Your task to perform on an android device: turn on data saver in the chrome app Image 0: 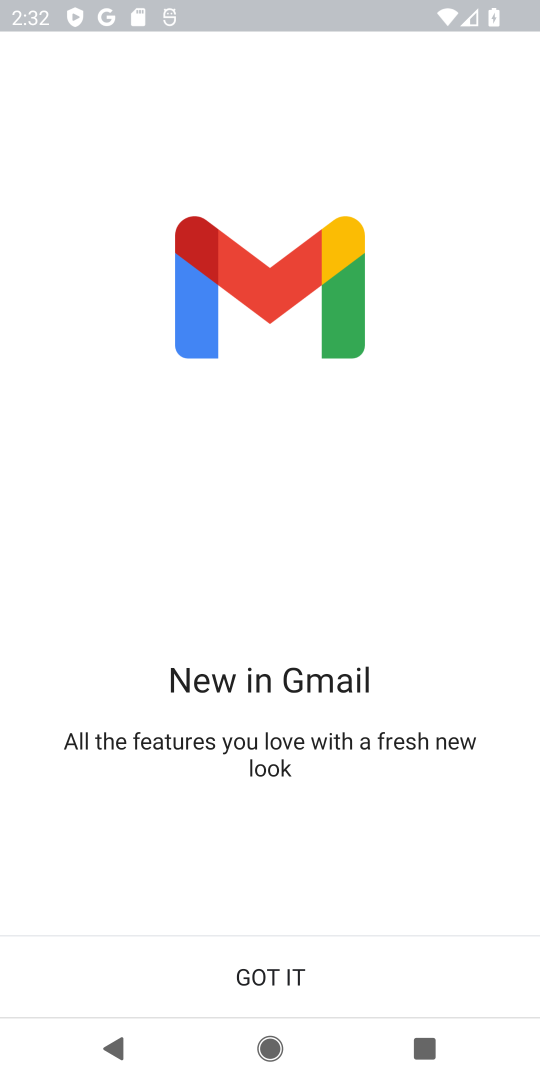
Step 0: click (250, 971)
Your task to perform on an android device: turn on data saver in the chrome app Image 1: 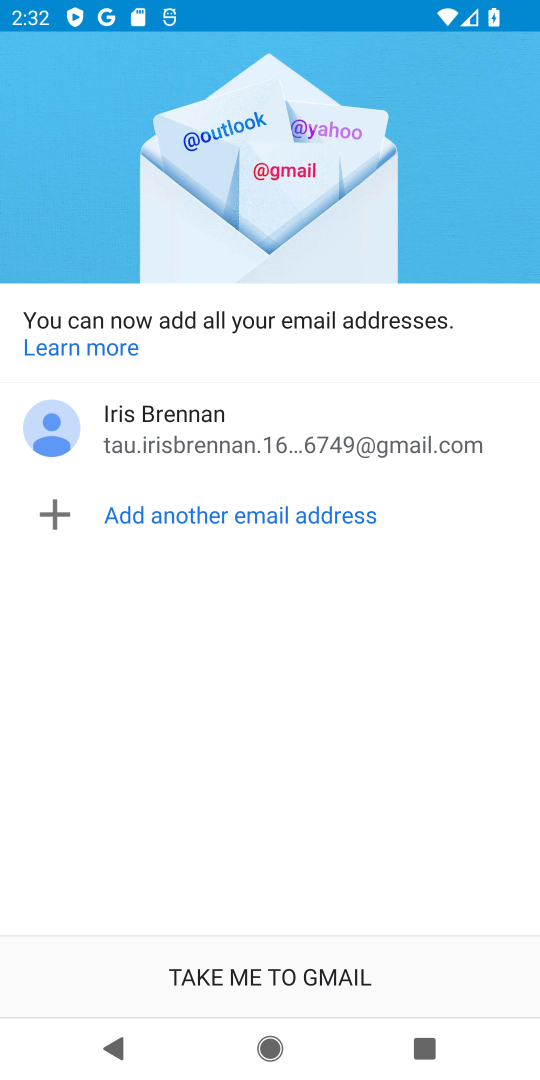
Step 1: press home button
Your task to perform on an android device: turn on data saver in the chrome app Image 2: 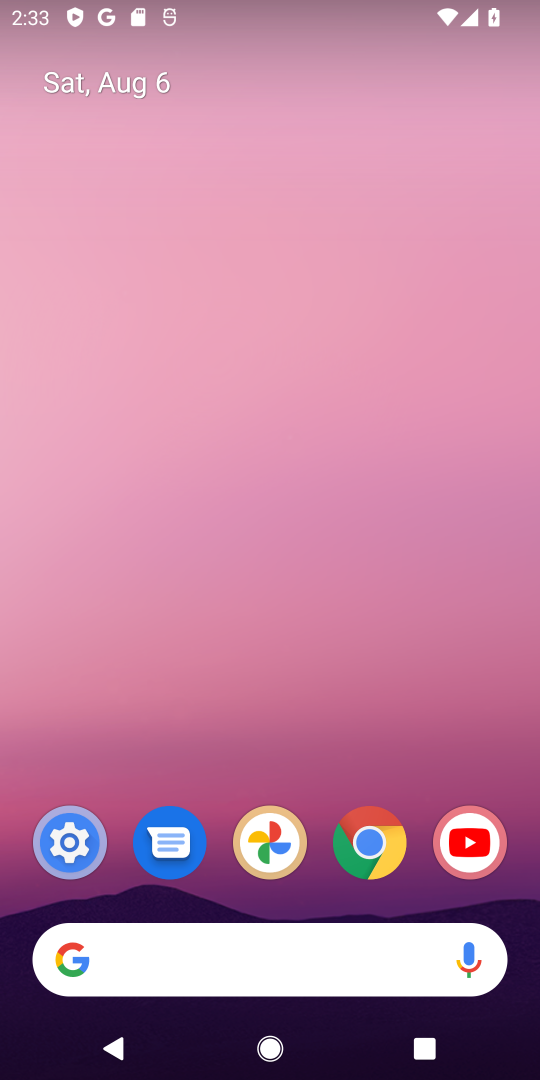
Step 2: click (379, 832)
Your task to perform on an android device: turn on data saver in the chrome app Image 3: 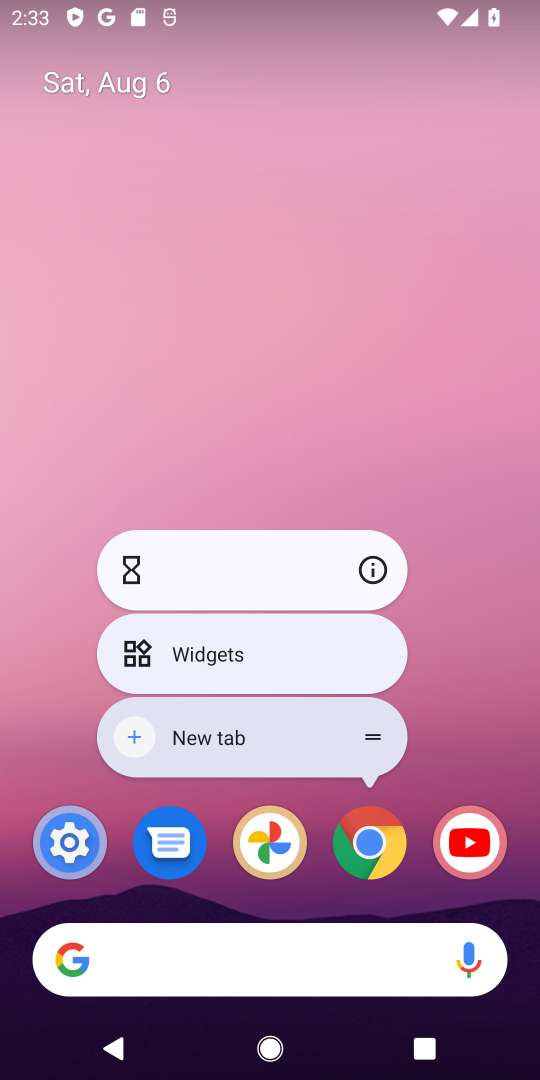
Step 3: click (361, 840)
Your task to perform on an android device: turn on data saver in the chrome app Image 4: 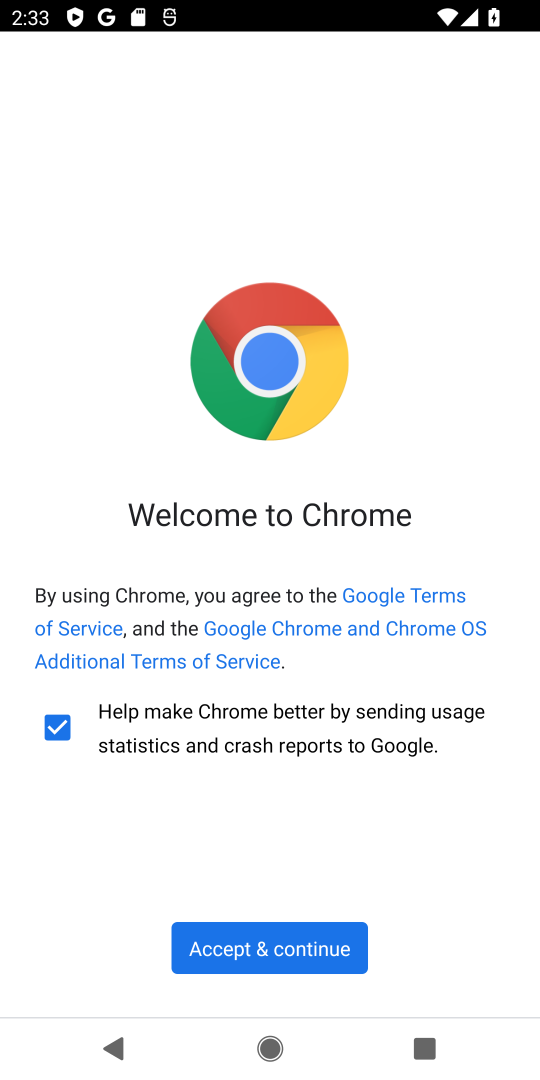
Step 4: click (318, 944)
Your task to perform on an android device: turn on data saver in the chrome app Image 5: 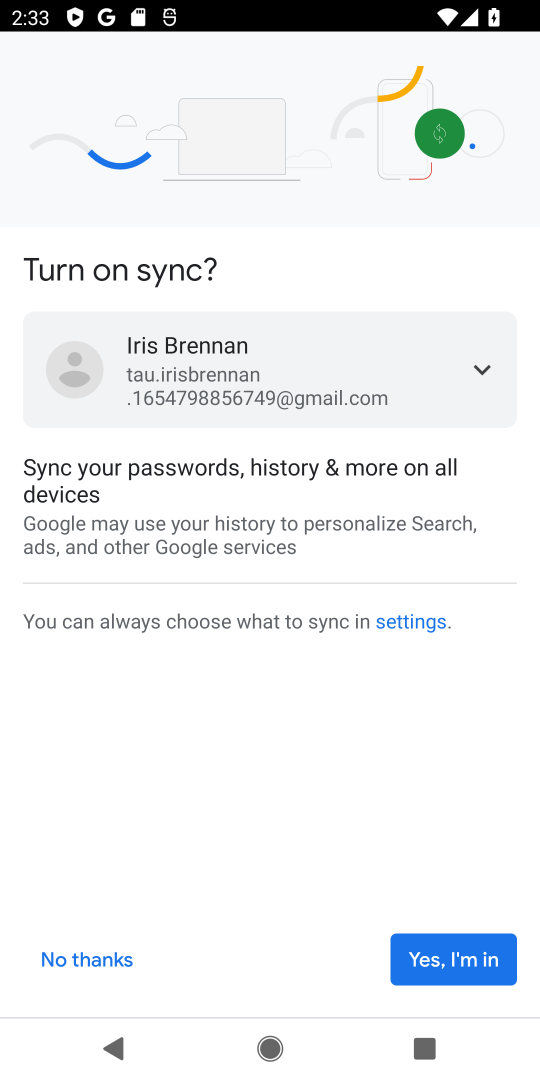
Step 5: click (448, 948)
Your task to perform on an android device: turn on data saver in the chrome app Image 6: 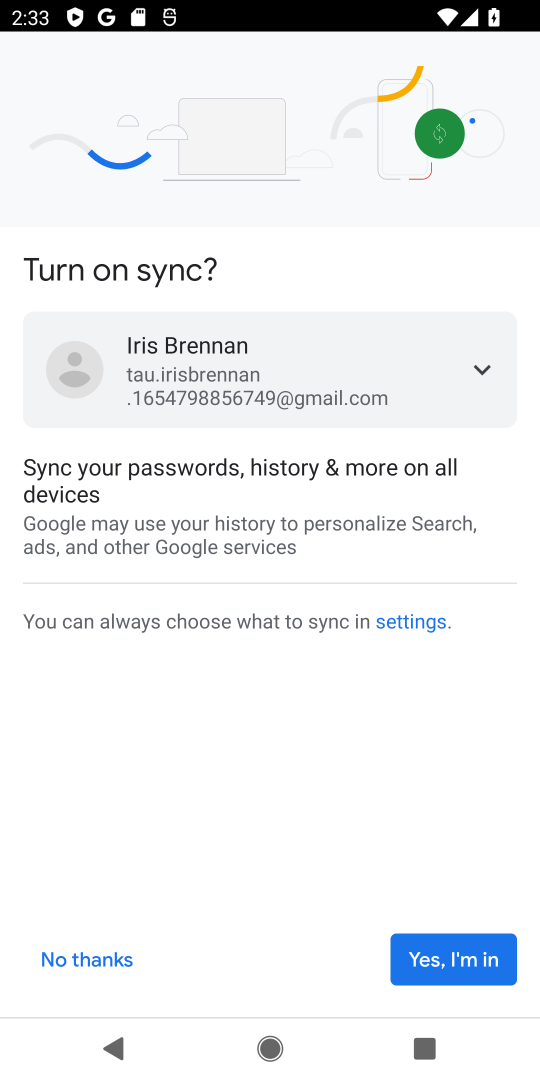
Step 6: click (448, 948)
Your task to perform on an android device: turn on data saver in the chrome app Image 7: 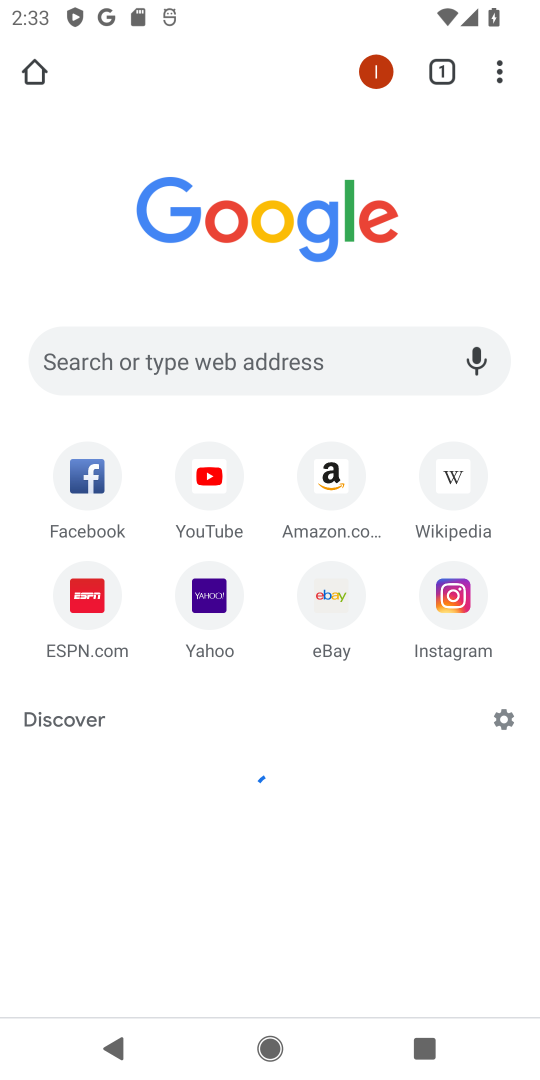
Step 7: click (496, 62)
Your task to perform on an android device: turn on data saver in the chrome app Image 8: 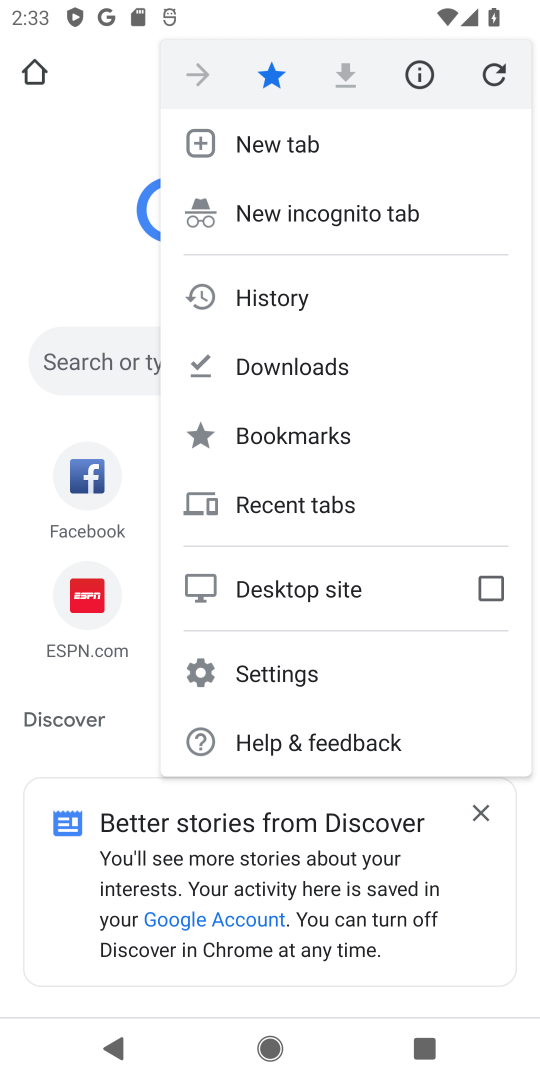
Step 8: click (274, 672)
Your task to perform on an android device: turn on data saver in the chrome app Image 9: 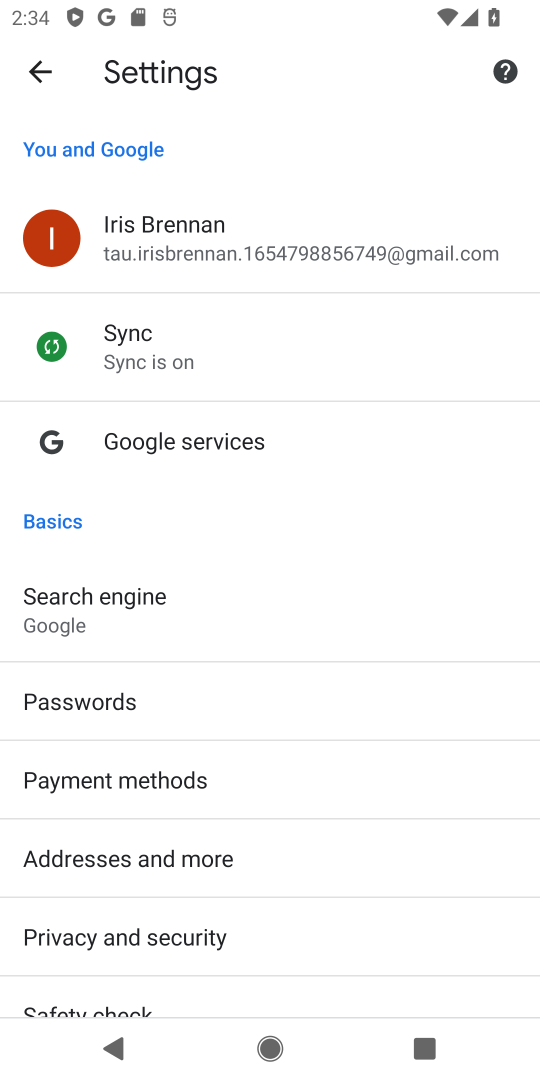
Step 9: drag from (425, 951) to (397, 455)
Your task to perform on an android device: turn on data saver in the chrome app Image 10: 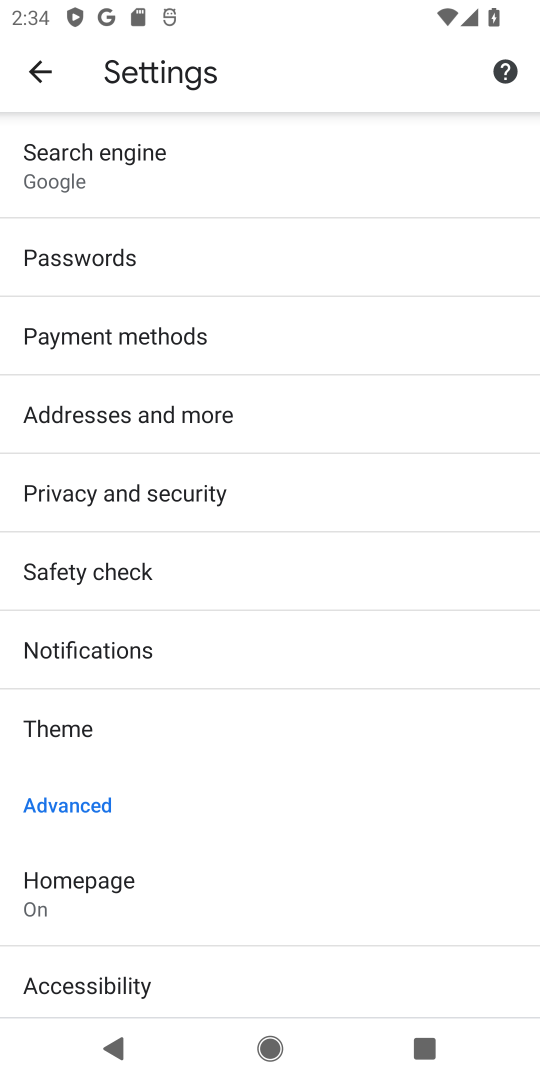
Step 10: drag from (452, 912) to (400, 424)
Your task to perform on an android device: turn on data saver in the chrome app Image 11: 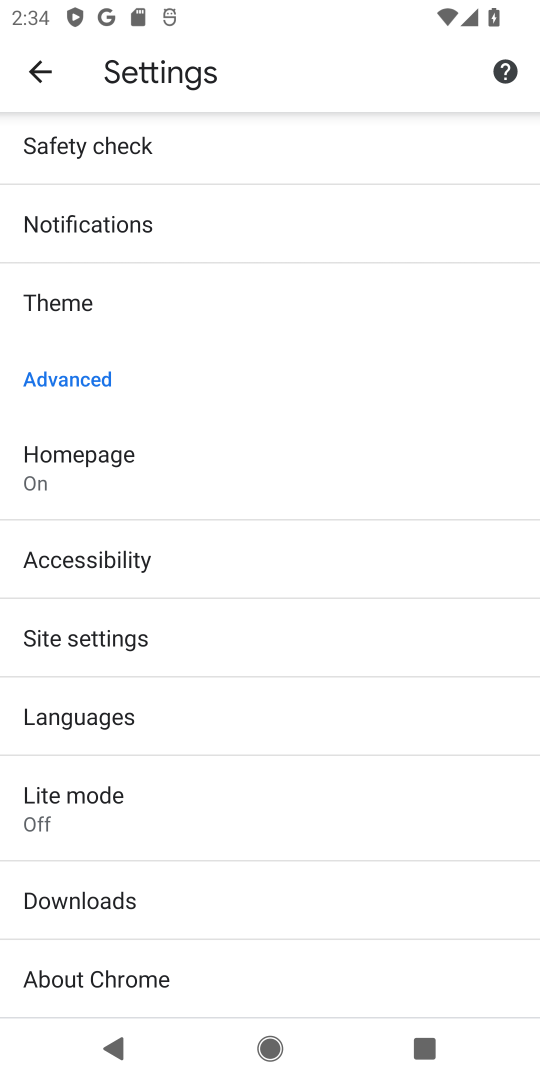
Step 11: click (164, 811)
Your task to perform on an android device: turn on data saver in the chrome app Image 12: 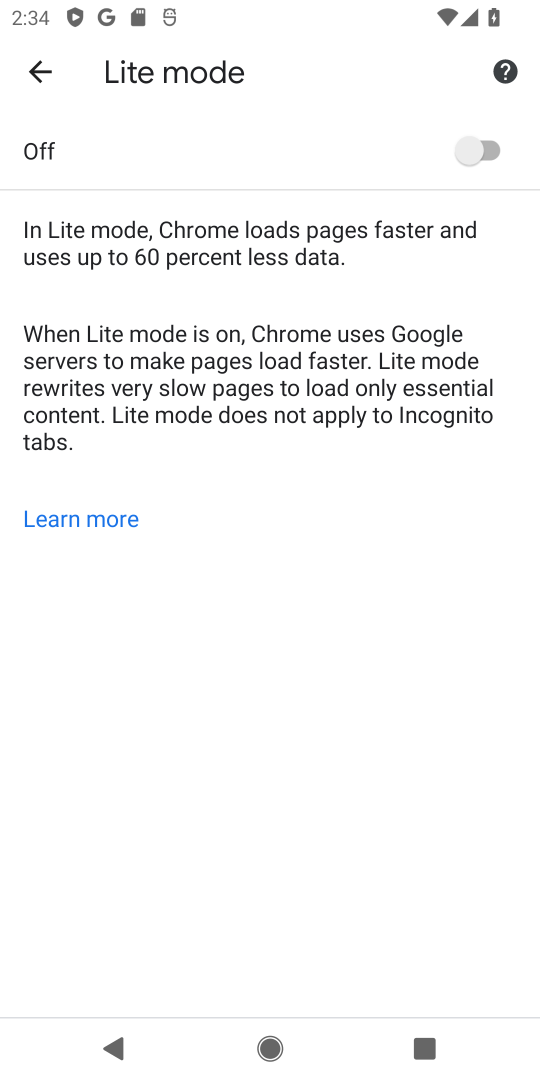
Step 12: click (491, 148)
Your task to perform on an android device: turn on data saver in the chrome app Image 13: 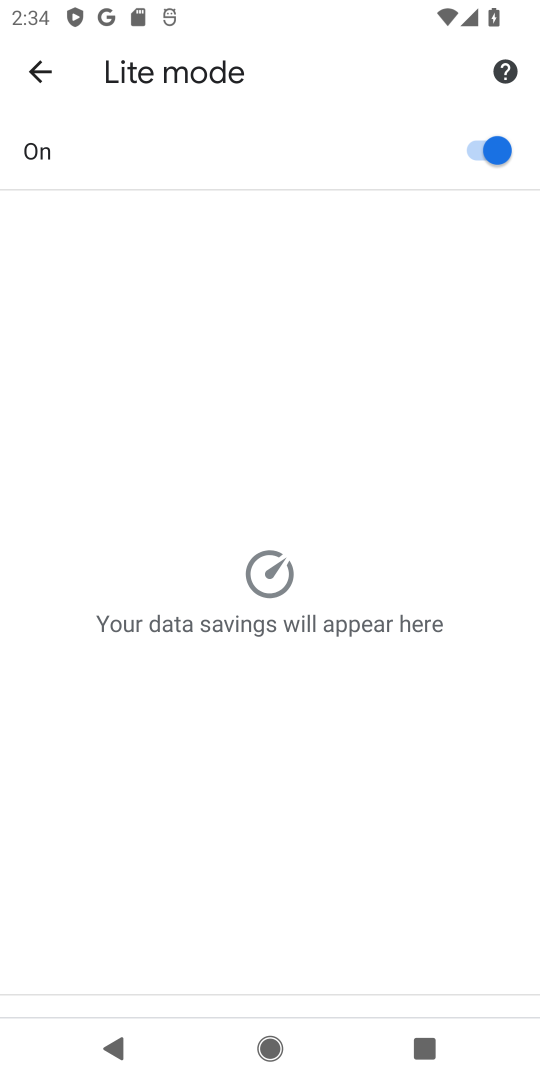
Step 13: task complete